Your task to perform on an android device: toggle sleep mode Image 0: 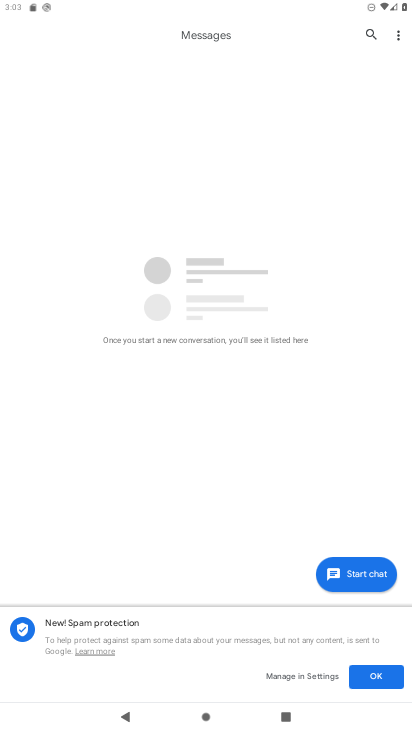
Step 0: press home button
Your task to perform on an android device: toggle sleep mode Image 1: 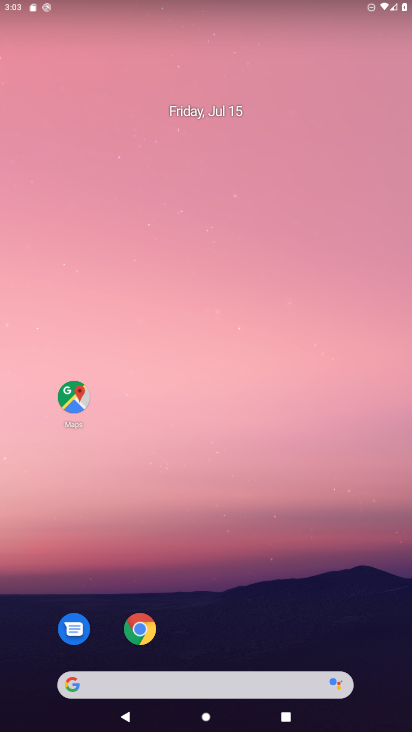
Step 1: drag from (184, 496) to (400, 335)
Your task to perform on an android device: toggle sleep mode Image 2: 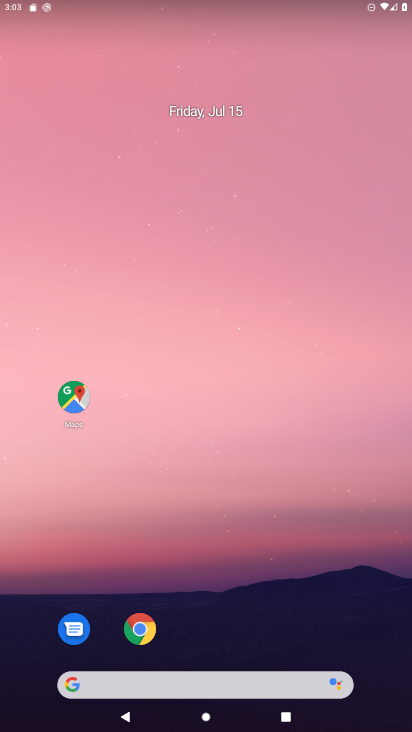
Step 2: drag from (280, 514) to (268, 6)
Your task to perform on an android device: toggle sleep mode Image 3: 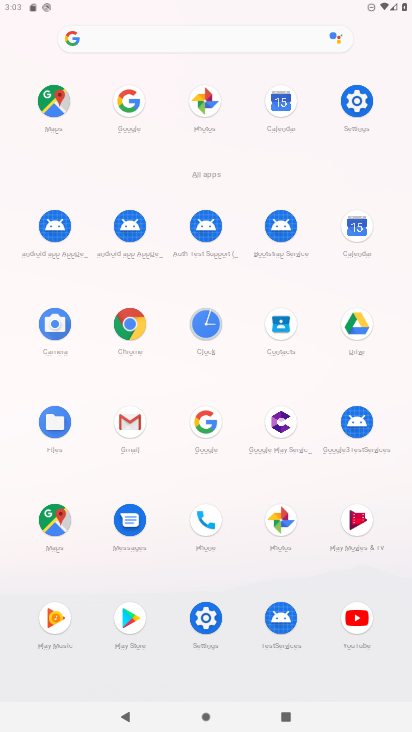
Step 3: click (354, 113)
Your task to perform on an android device: toggle sleep mode Image 4: 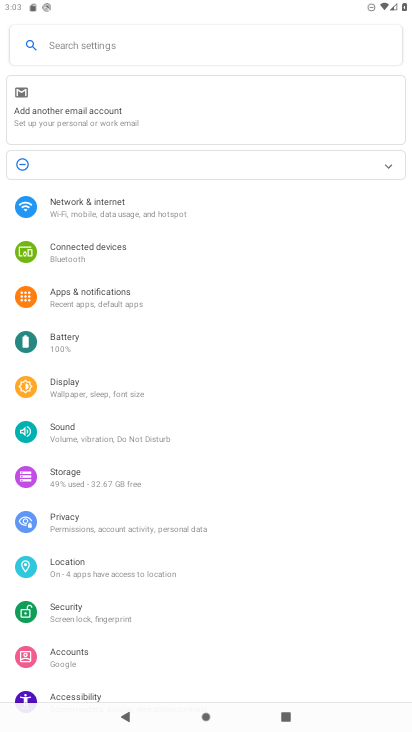
Step 4: click (65, 387)
Your task to perform on an android device: toggle sleep mode Image 5: 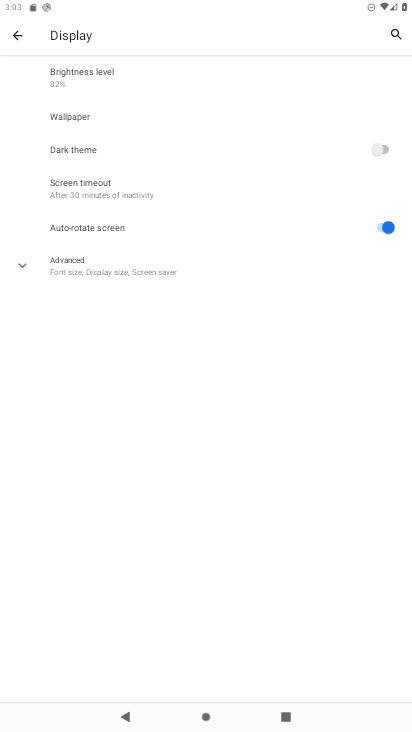
Step 5: click (90, 188)
Your task to perform on an android device: toggle sleep mode Image 6: 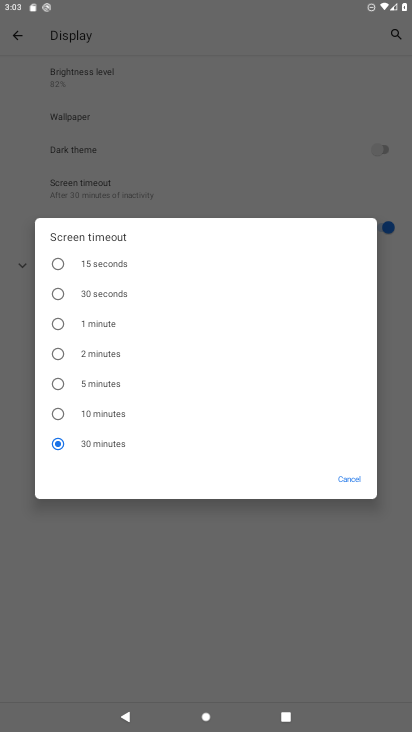
Step 6: click (85, 337)
Your task to perform on an android device: toggle sleep mode Image 7: 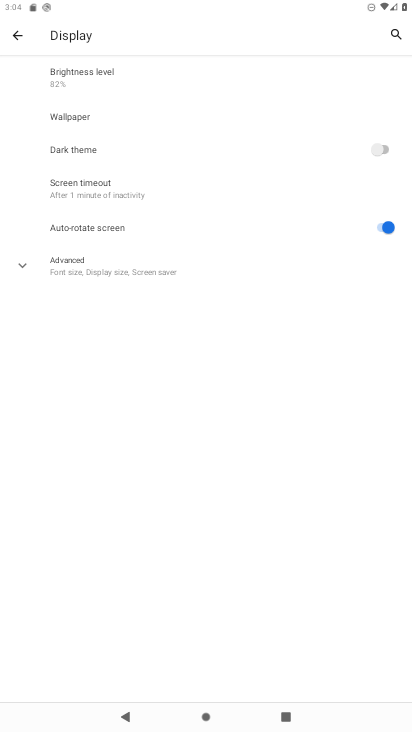
Step 7: task complete